Your task to perform on an android device: turn off location Image 0: 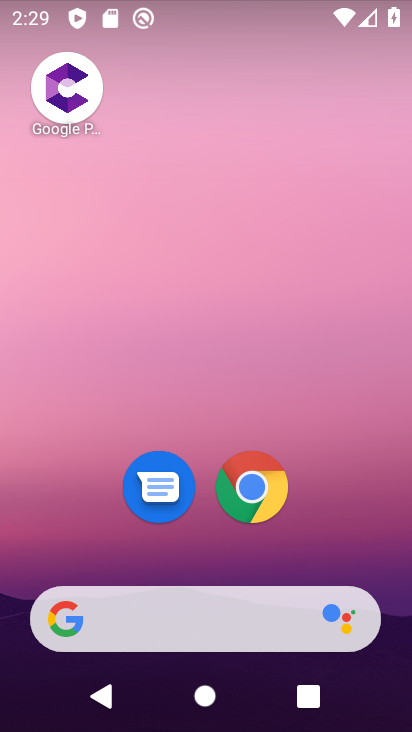
Step 0: drag from (197, 138) to (210, 18)
Your task to perform on an android device: turn off location Image 1: 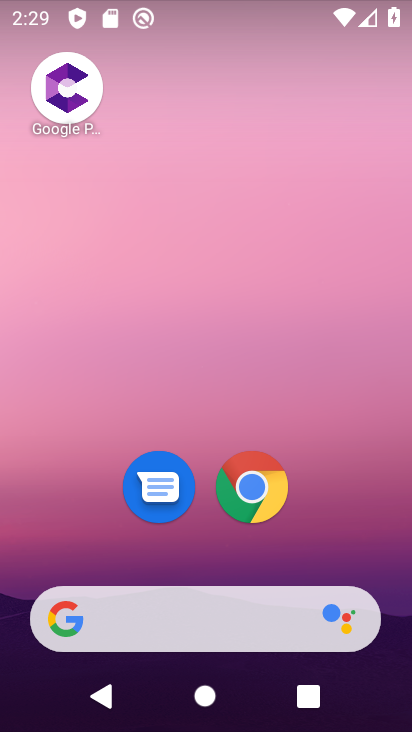
Step 1: drag from (82, 514) to (231, 3)
Your task to perform on an android device: turn off location Image 2: 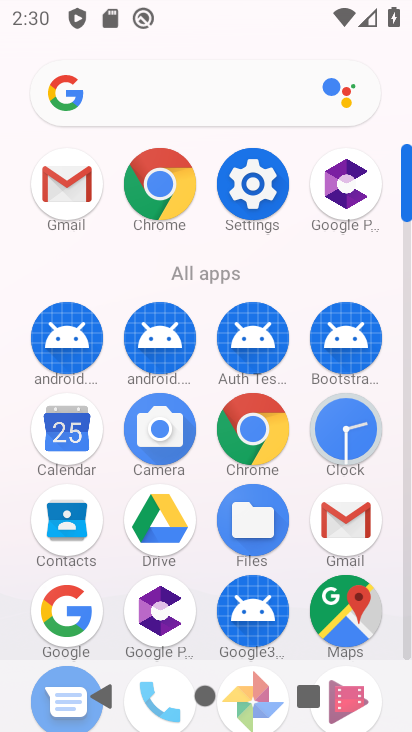
Step 2: click (256, 180)
Your task to perform on an android device: turn off location Image 3: 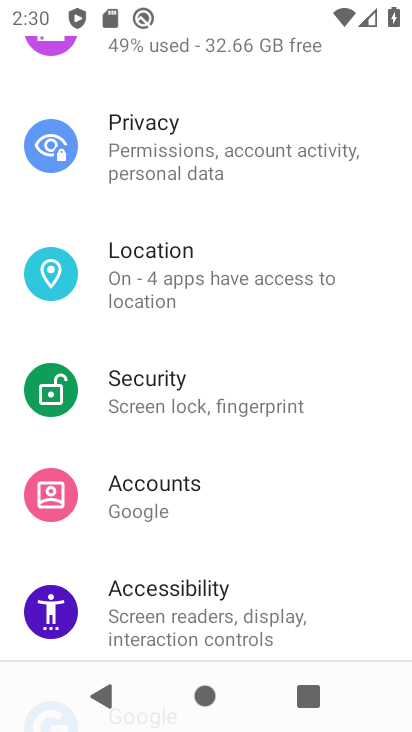
Step 3: click (161, 267)
Your task to perform on an android device: turn off location Image 4: 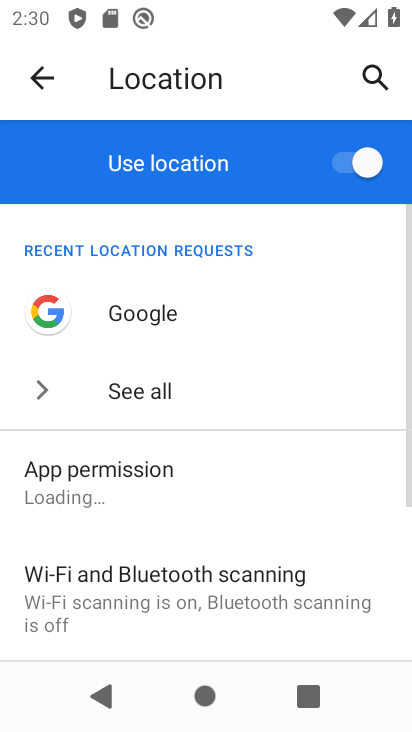
Step 4: click (371, 169)
Your task to perform on an android device: turn off location Image 5: 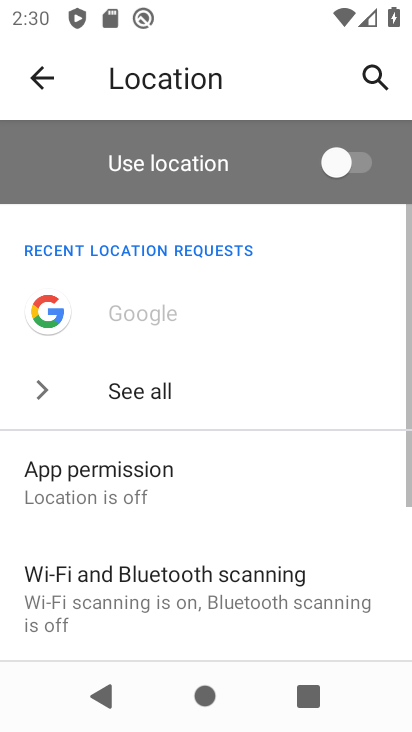
Step 5: task complete